Your task to perform on an android device: Open Wikipedia Image 0: 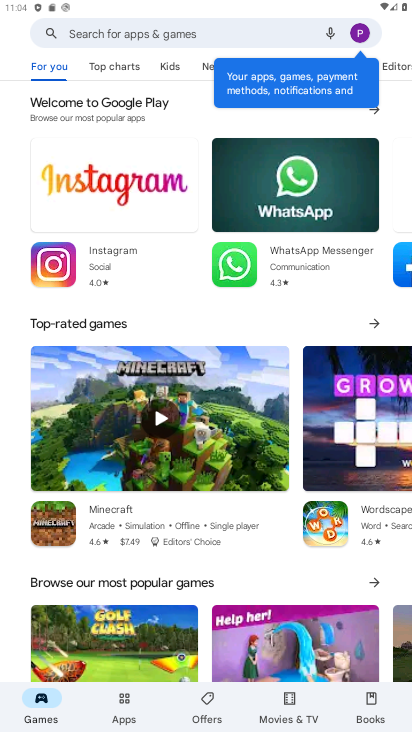
Step 0: press home button
Your task to perform on an android device: Open Wikipedia Image 1: 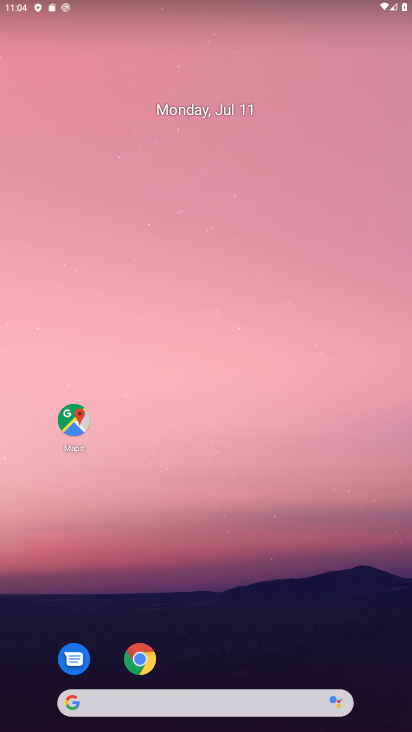
Step 1: drag from (297, 645) to (386, 3)
Your task to perform on an android device: Open Wikipedia Image 2: 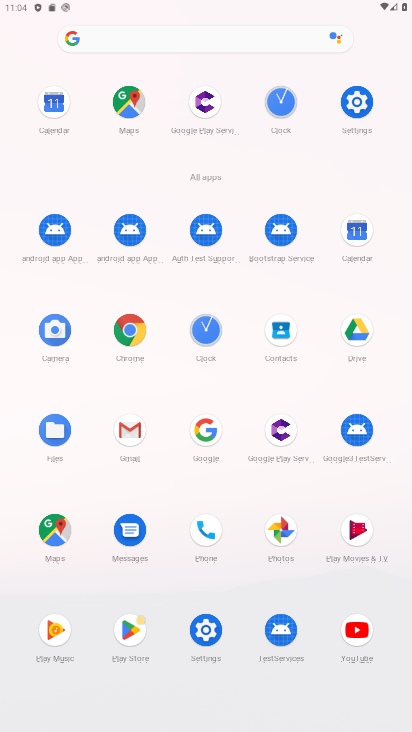
Step 2: click (130, 334)
Your task to perform on an android device: Open Wikipedia Image 3: 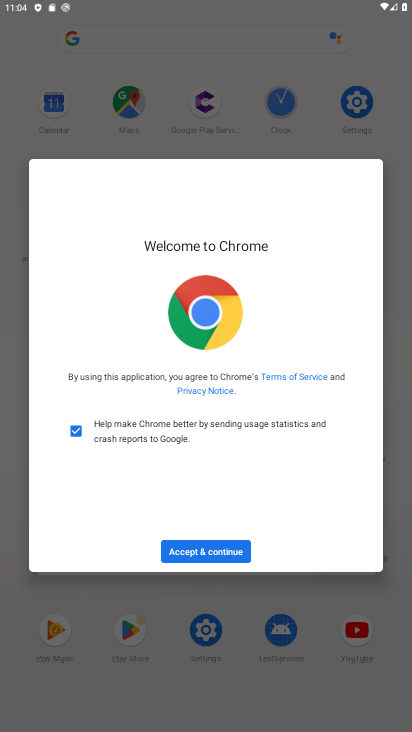
Step 3: click (221, 552)
Your task to perform on an android device: Open Wikipedia Image 4: 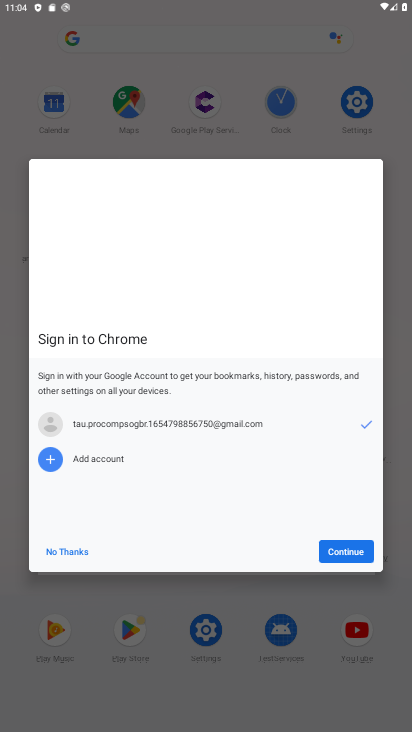
Step 4: click (64, 556)
Your task to perform on an android device: Open Wikipedia Image 5: 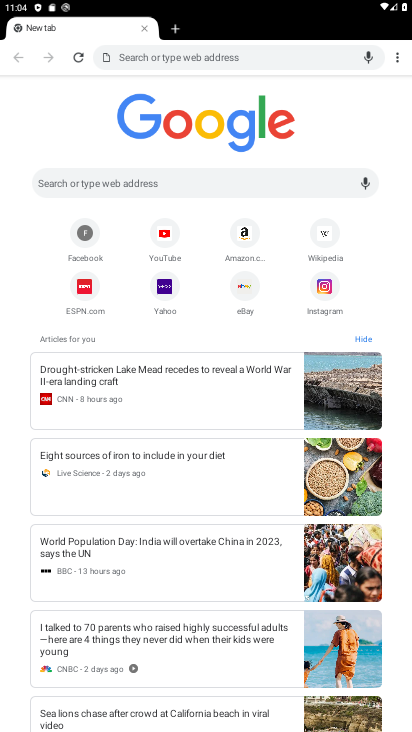
Step 5: click (332, 218)
Your task to perform on an android device: Open Wikipedia Image 6: 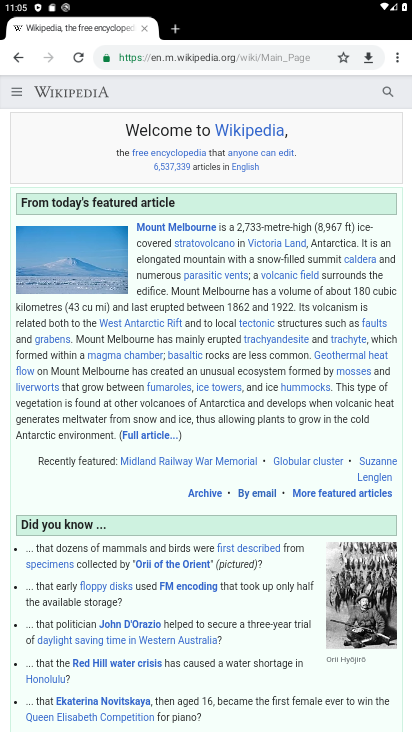
Step 6: task complete